Your task to perform on an android device: Go to internet settings Image 0: 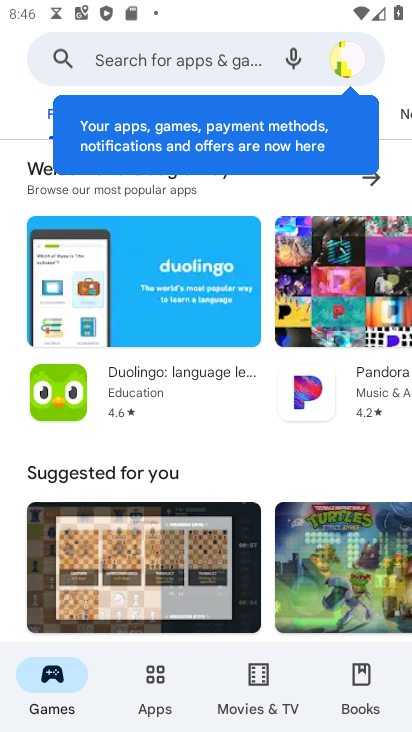
Step 0: press home button
Your task to perform on an android device: Go to internet settings Image 1: 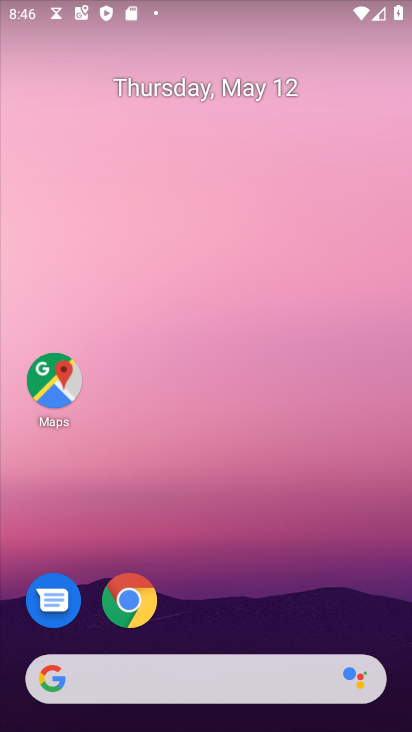
Step 1: drag from (189, 613) to (264, 200)
Your task to perform on an android device: Go to internet settings Image 2: 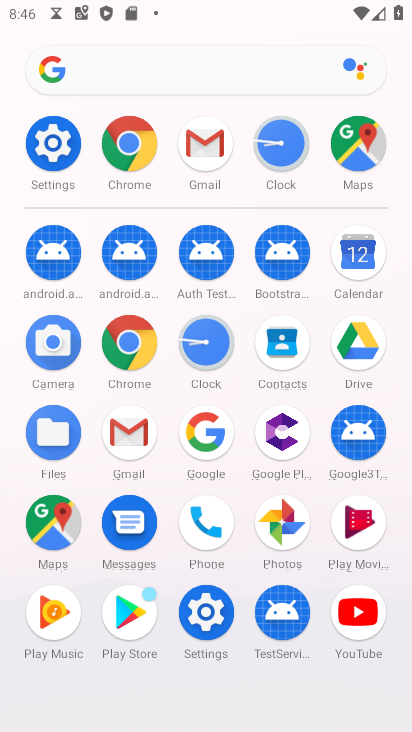
Step 2: click (52, 169)
Your task to perform on an android device: Go to internet settings Image 3: 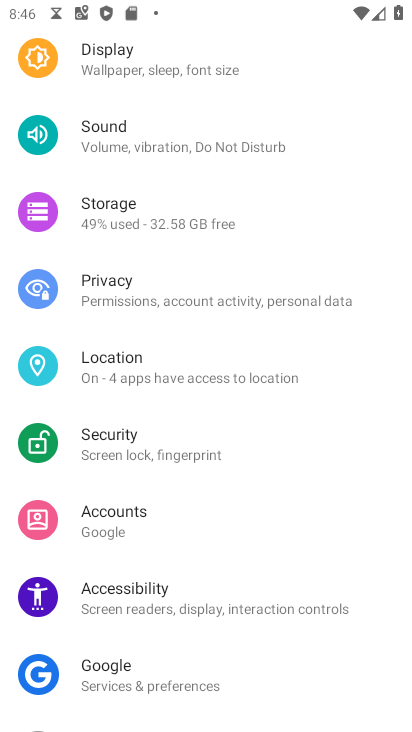
Step 3: drag from (221, 177) to (285, 728)
Your task to perform on an android device: Go to internet settings Image 4: 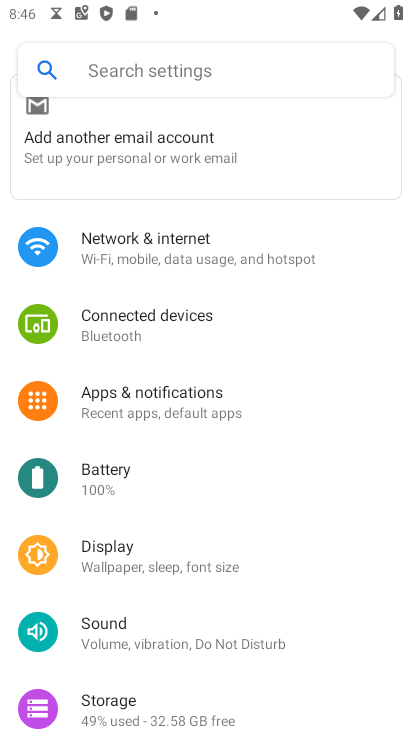
Step 4: click (193, 250)
Your task to perform on an android device: Go to internet settings Image 5: 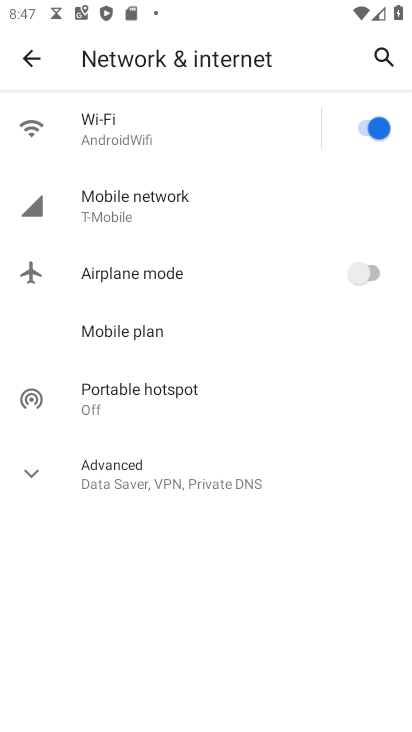
Step 5: task complete